Your task to perform on an android device: turn off notifications settings in the gmail app Image 0: 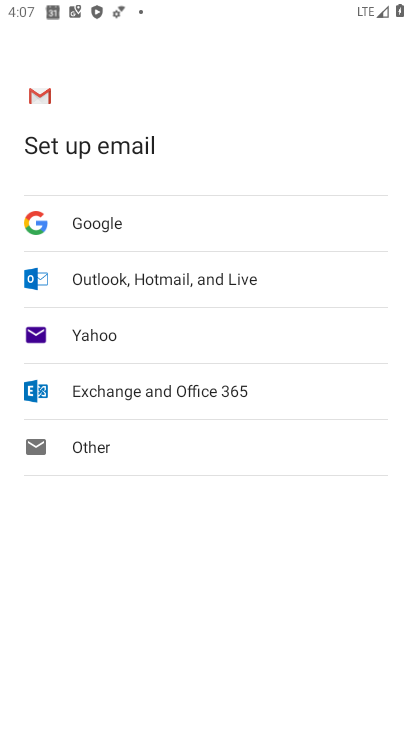
Step 0: press home button
Your task to perform on an android device: turn off notifications settings in the gmail app Image 1: 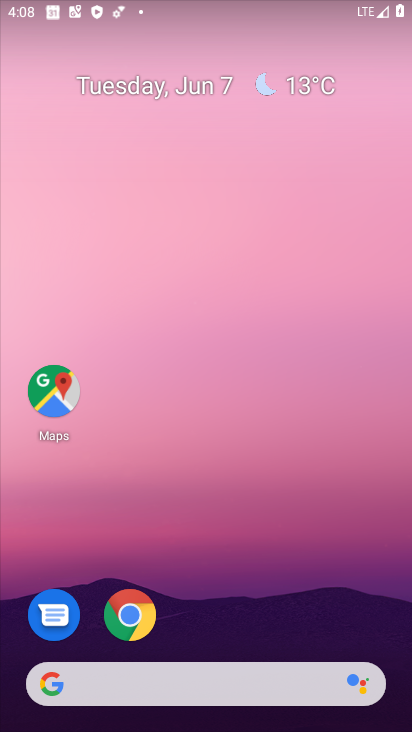
Step 1: drag from (210, 718) to (210, 91)
Your task to perform on an android device: turn off notifications settings in the gmail app Image 2: 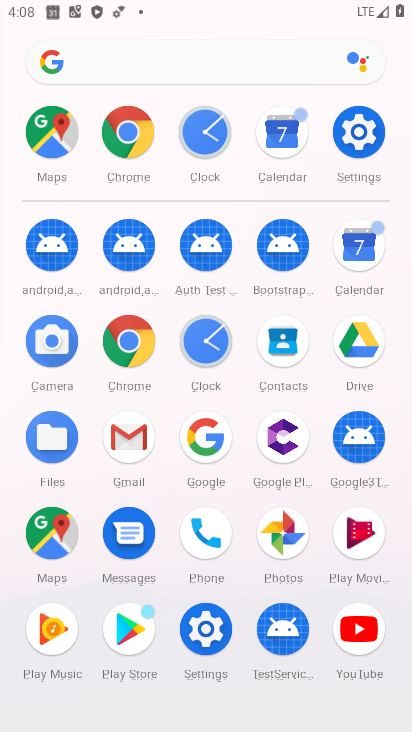
Step 2: click (134, 440)
Your task to perform on an android device: turn off notifications settings in the gmail app Image 3: 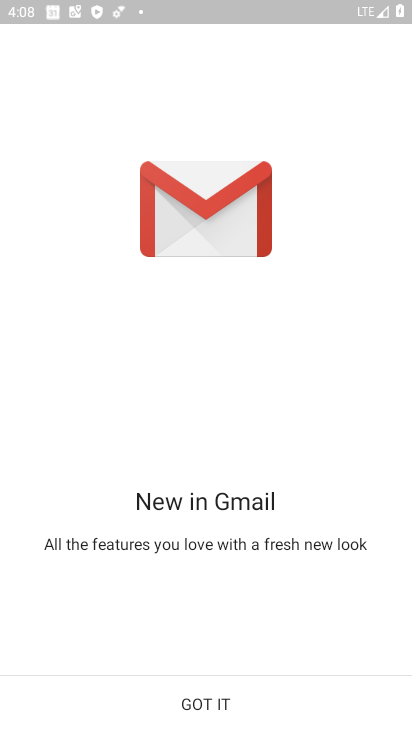
Step 3: click (199, 692)
Your task to perform on an android device: turn off notifications settings in the gmail app Image 4: 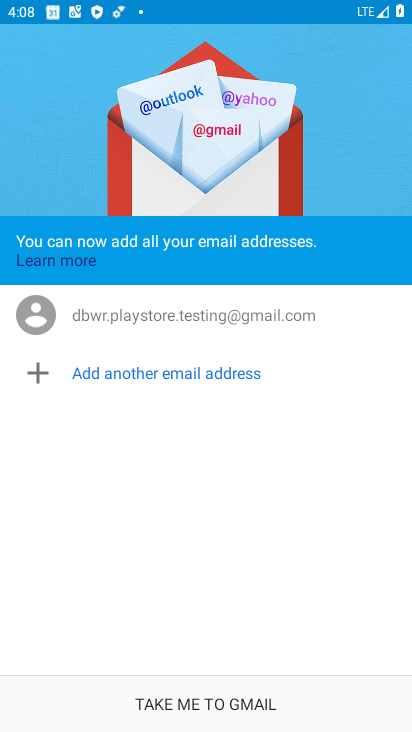
Step 4: click (189, 713)
Your task to perform on an android device: turn off notifications settings in the gmail app Image 5: 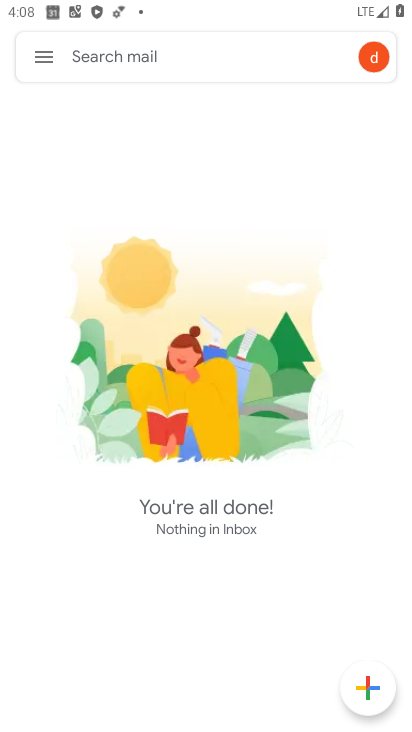
Step 5: click (45, 55)
Your task to perform on an android device: turn off notifications settings in the gmail app Image 6: 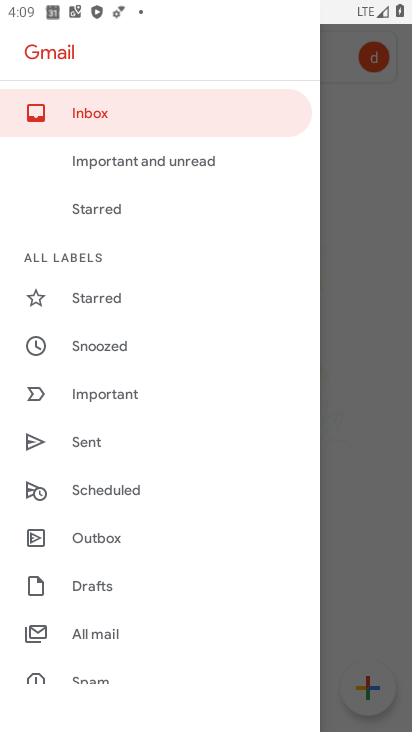
Step 6: drag from (101, 667) to (134, 237)
Your task to perform on an android device: turn off notifications settings in the gmail app Image 7: 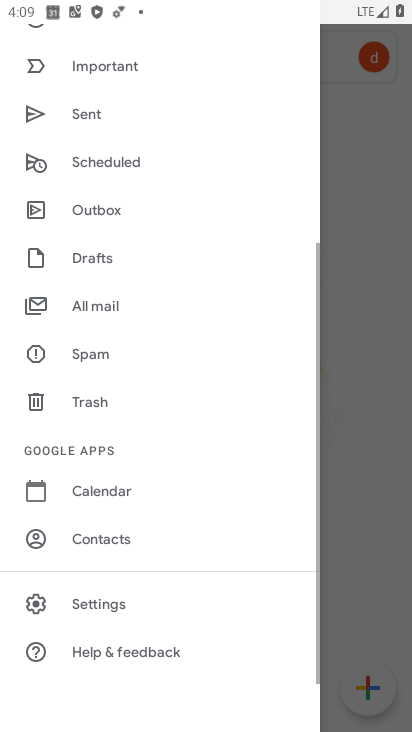
Step 7: click (98, 595)
Your task to perform on an android device: turn off notifications settings in the gmail app Image 8: 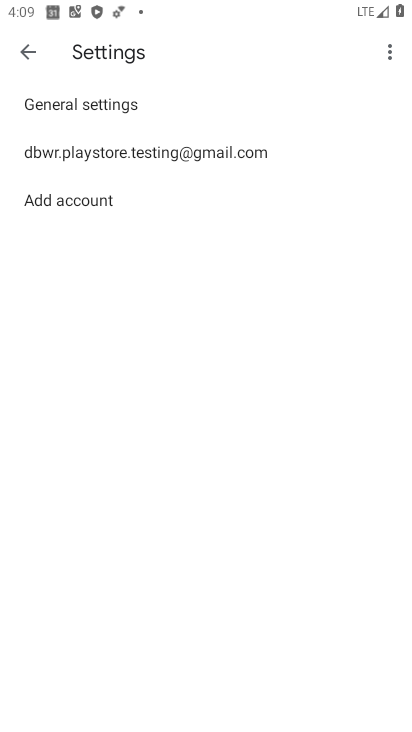
Step 8: click (149, 147)
Your task to perform on an android device: turn off notifications settings in the gmail app Image 9: 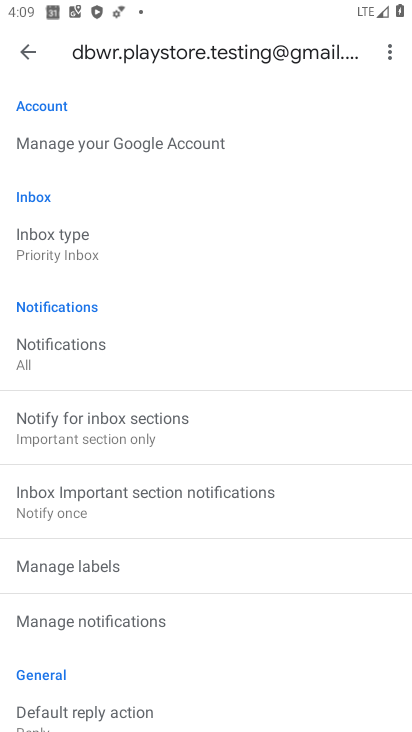
Step 9: click (73, 345)
Your task to perform on an android device: turn off notifications settings in the gmail app Image 10: 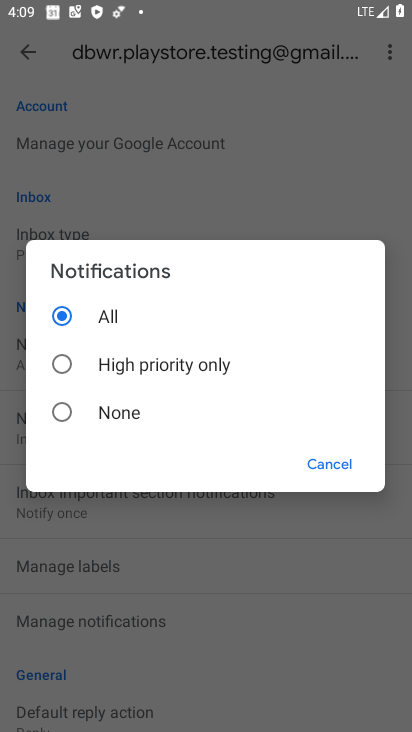
Step 10: click (62, 415)
Your task to perform on an android device: turn off notifications settings in the gmail app Image 11: 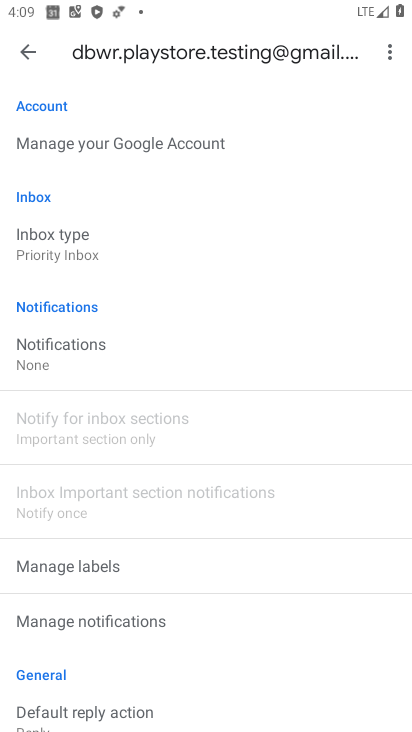
Step 11: task complete